Your task to perform on an android device: Open Google Maps and go to "Timeline" Image 0: 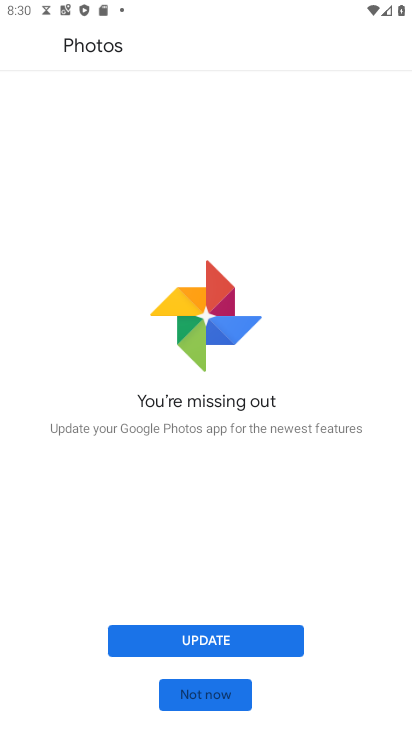
Step 0: press home button
Your task to perform on an android device: Open Google Maps and go to "Timeline" Image 1: 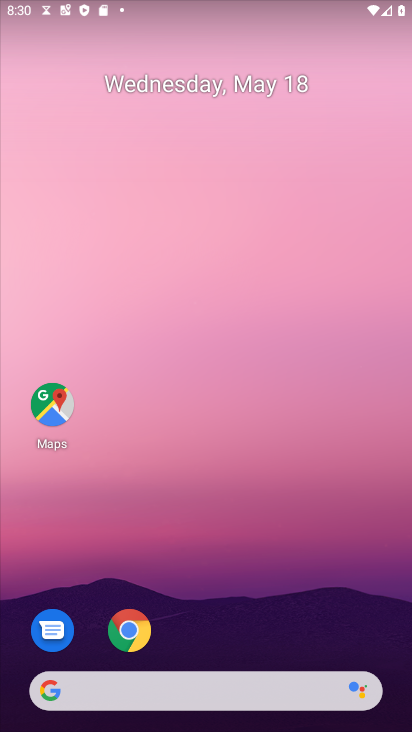
Step 1: click (41, 411)
Your task to perform on an android device: Open Google Maps and go to "Timeline" Image 2: 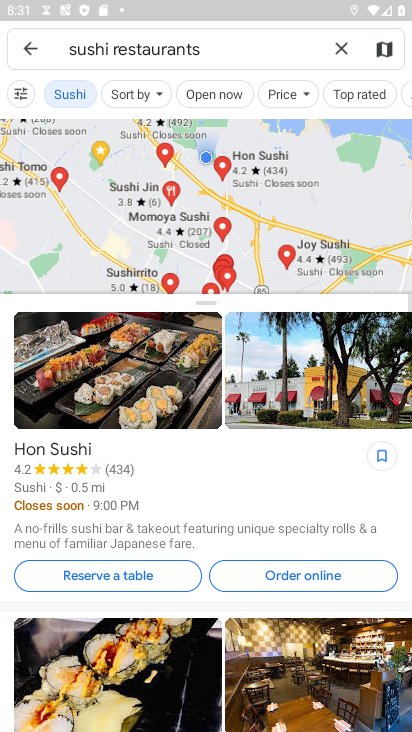
Step 2: click (32, 47)
Your task to perform on an android device: Open Google Maps and go to "Timeline" Image 3: 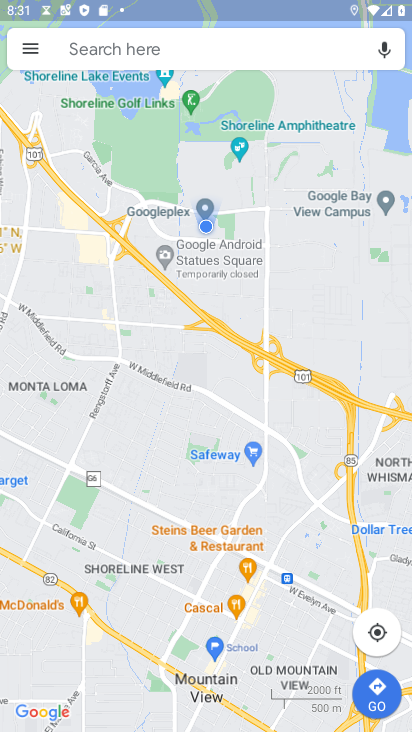
Step 3: click (20, 56)
Your task to perform on an android device: Open Google Maps and go to "Timeline" Image 4: 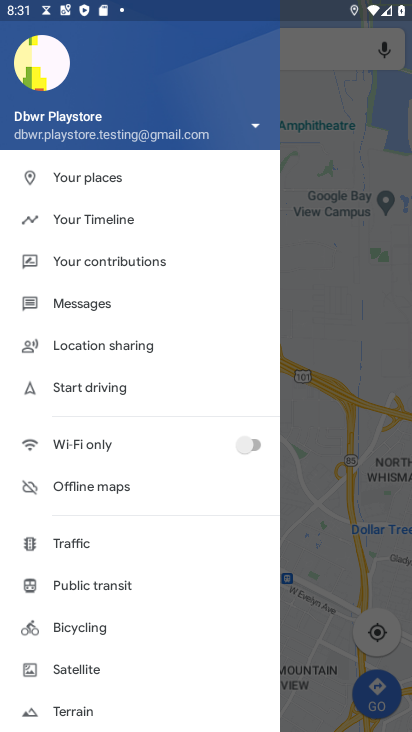
Step 4: click (101, 217)
Your task to perform on an android device: Open Google Maps and go to "Timeline" Image 5: 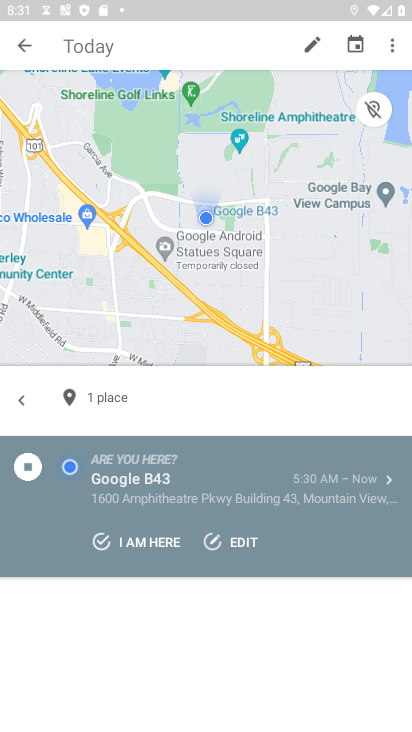
Step 5: task complete